Your task to perform on an android device: turn pop-ups on in chrome Image 0: 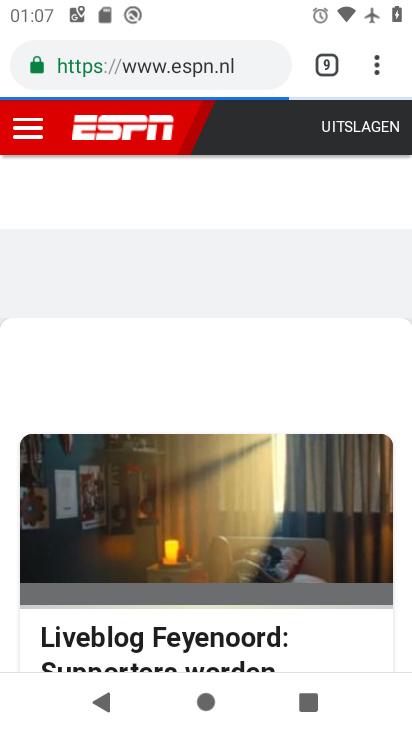
Step 0: press home button
Your task to perform on an android device: turn pop-ups on in chrome Image 1: 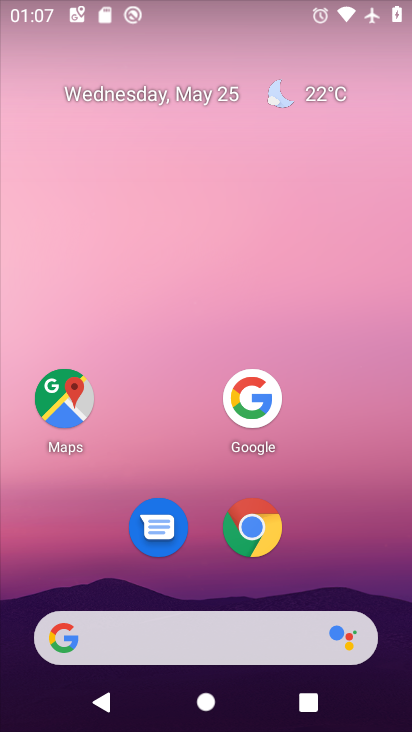
Step 1: click (257, 538)
Your task to perform on an android device: turn pop-ups on in chrome Image 2: 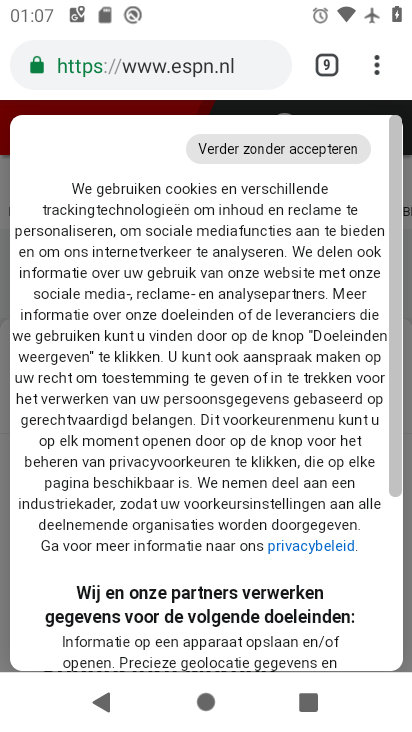
Step 2: drag from (373, 60) to (234, 582)
Your task to perform on an android device: turn pop-ups on in chrome Image 3: 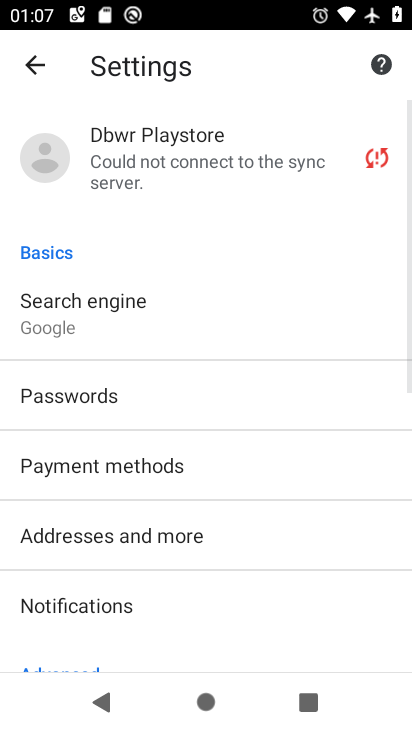
Step 3: drag from (229, 526) to (344, 54)
Your task to perform on an android device: turn pop-ups on in chrome Image 4: 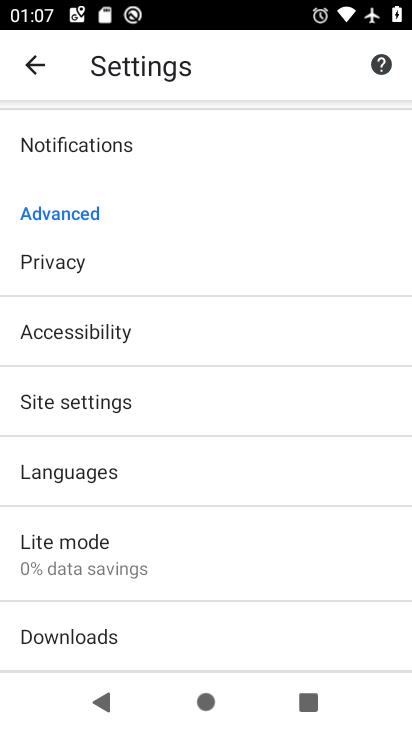
Step 4: click (95, 409)
Your task to perform on an android device: turn pop-ups on in chrome Image 5: 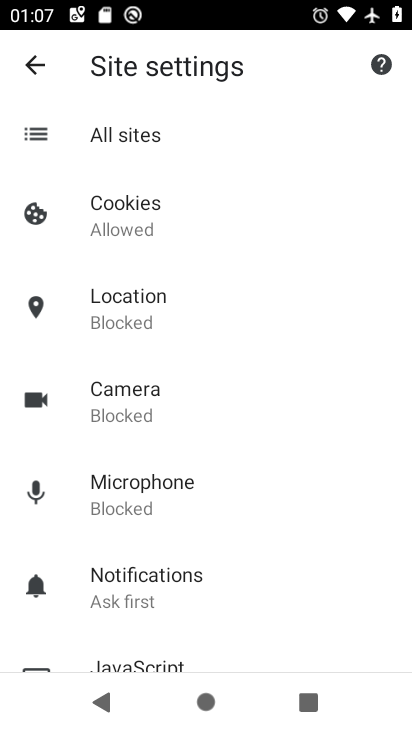
Step 5: drag from (176, 586) to (248, 254)
Your task to perform on an android device: turn pop-ups on in chrome Image 6: 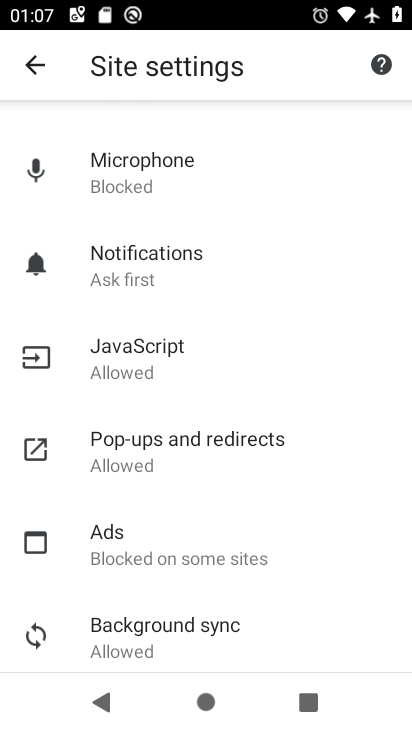
Step 6: click (148, 454)
Your task to perform on an android device: turn pop-ups on in chrome Image 7: 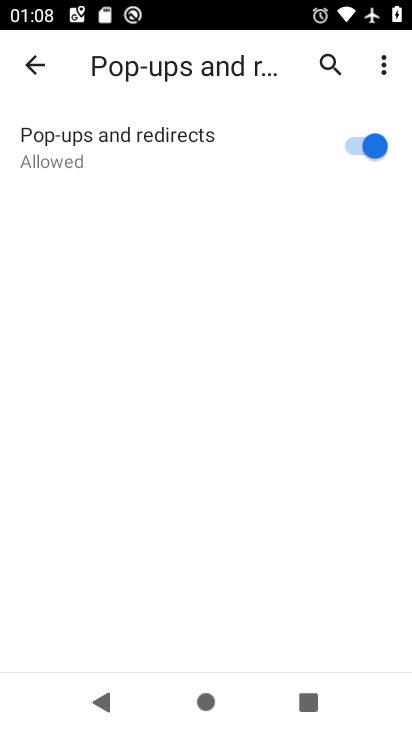
Step 7: task complete